Your task to perform on an android device: Go to battery settings Image 0: 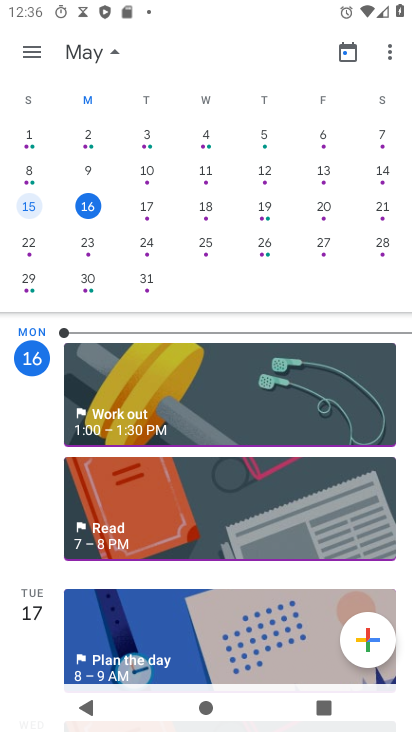
Step 0: press home button
Your task to perform on an android device: Go to battery settings Image 1: 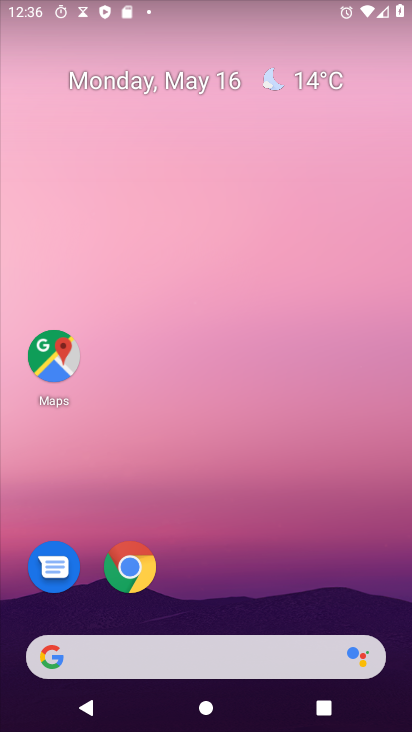
Step 1: drag from (245, 574) to (247, 61)
Your task to perform on an android device: Go to battery settings Image 2: 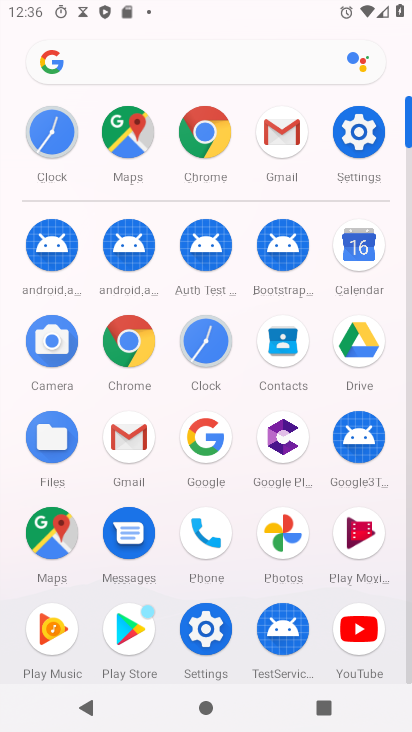
Step 2: click (204, 629)
Your task to perform on an android device: Go to battery settings Image 3: 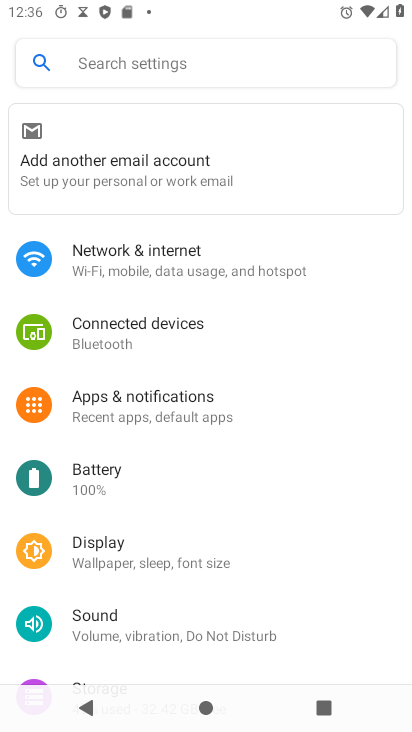
Step 3: click (140, 486)
Your task to perform on an android device: Go to battery settings Image 4: 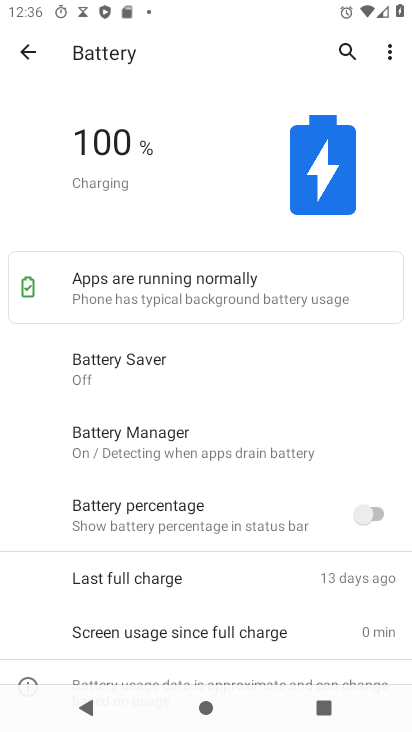
Step 4: task complete